Your task to perform on an android device: turn on bluetooth scan Image 0: 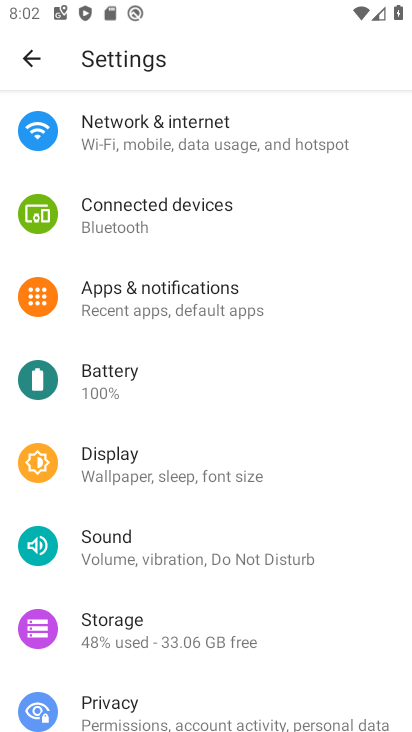
Step 0: drag from (336, 620) to (324, 347)
Your task to perform on an android device: turn on bluetooth scan Image 1: 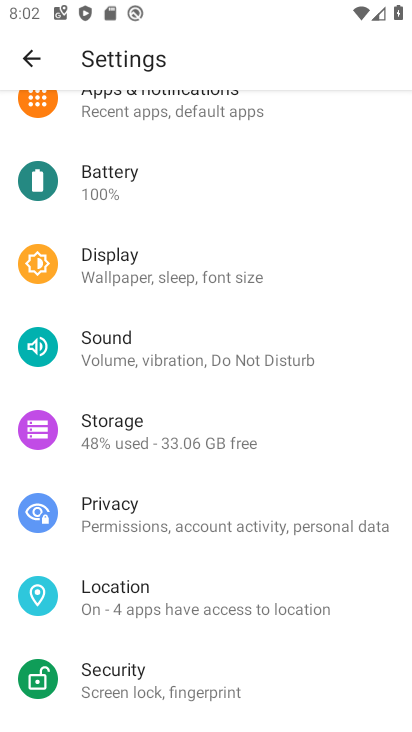
Step 1: click (113, 582)
Your task to perform on an android device: turn on bluetooth scan Image 2: 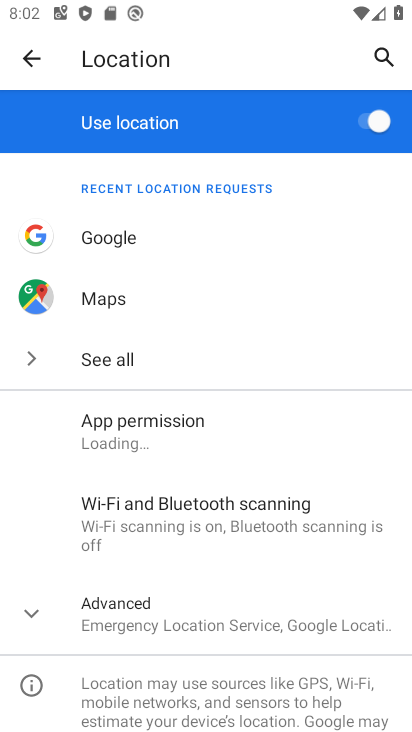
Step 2: click (135, 533)
Your task to perform on an android device: turn on bluetooth scan Image 3: 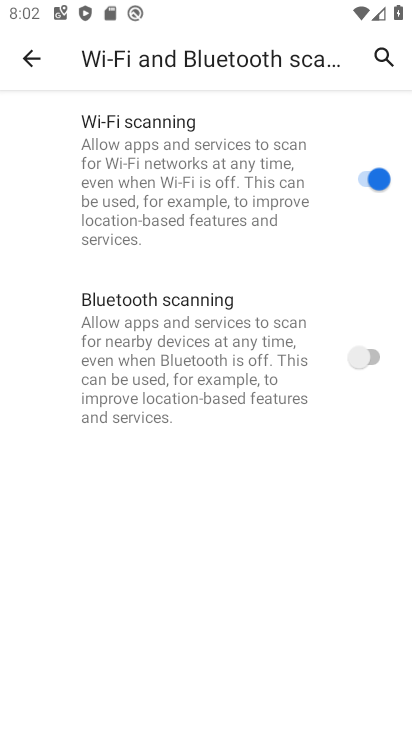
Step 3: click (370, 350)
Your task to perform on an android device: turn on bluetooth scan Image 4: 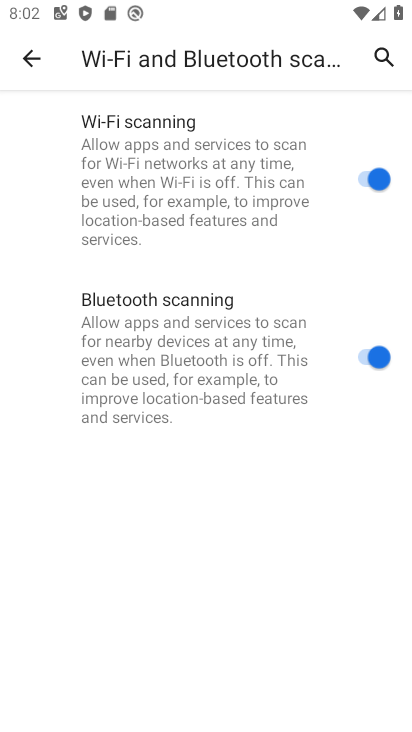
Step 4: task complete